Your task to perform on an android device: Go to location settings Image 0: 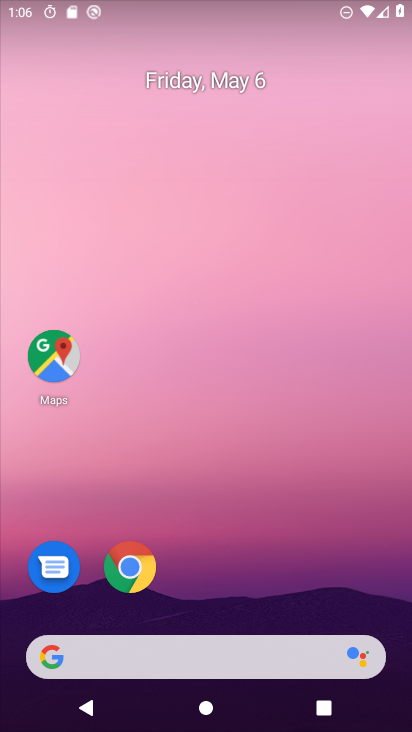
Step 0: drag from (307, 680) to (256, 296)
Your task to perform on an android device: Go to location settings Image 1: 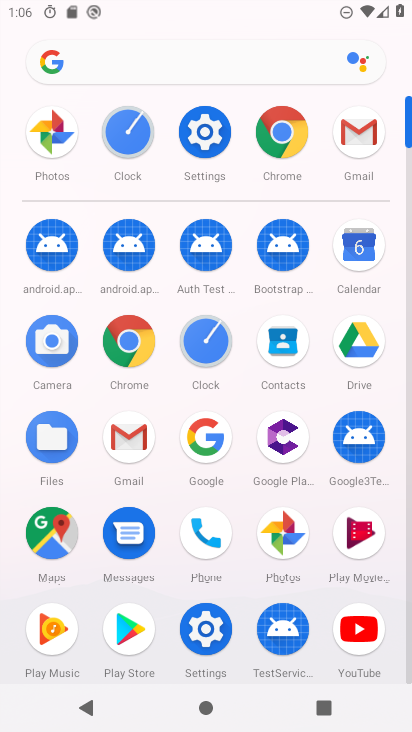
Step 1: click (212, 165)
Your task to perform on an android device: Go to location settings Image 2: 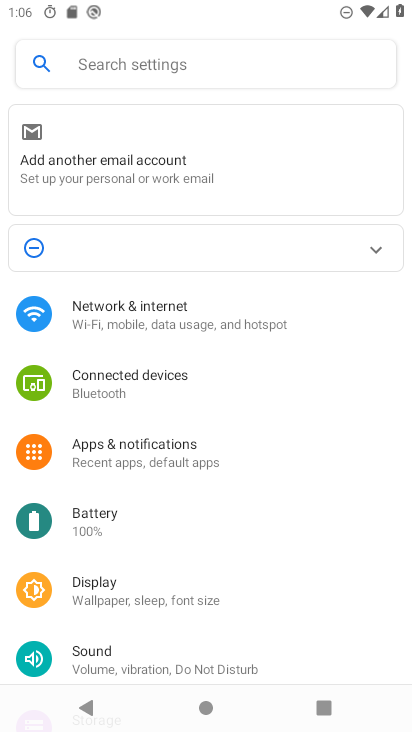
Step 2: click (166, 86)
Your task to perform on an android device: Go to location settings Image 3: 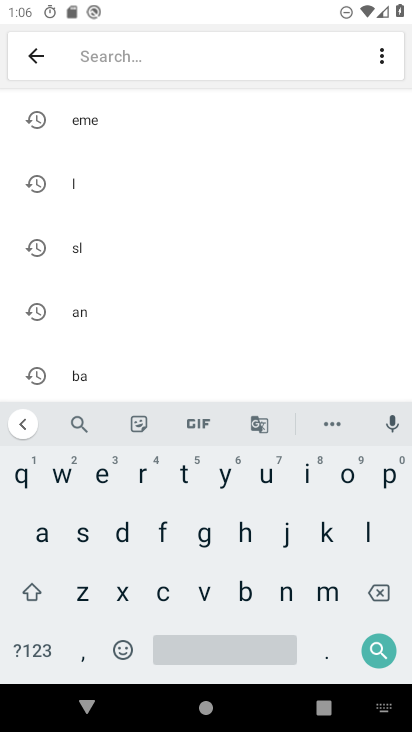
Step 3: click (371, 534)
Your task to perform on an android device: Go to location settings Image 4: 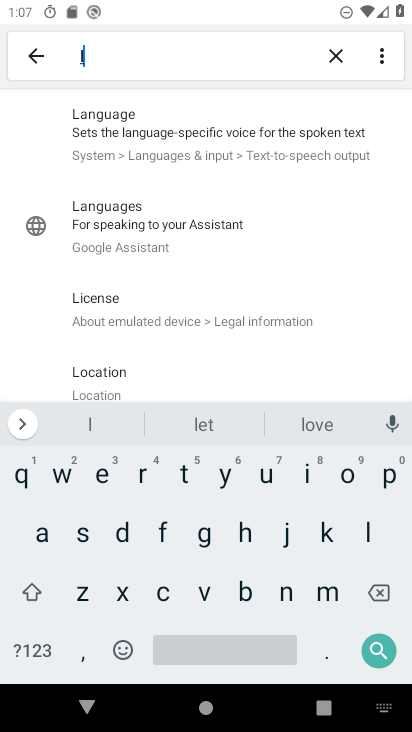
Step 4: click (234, 374)
Your task to perform on an android device: Go to location settings Image 5: 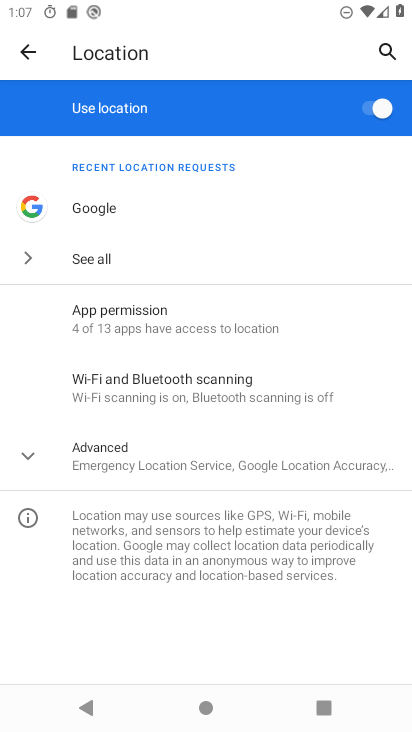
Step 5: task complete